Your task to perform on an android device: change the upload size in google photos Image 0: 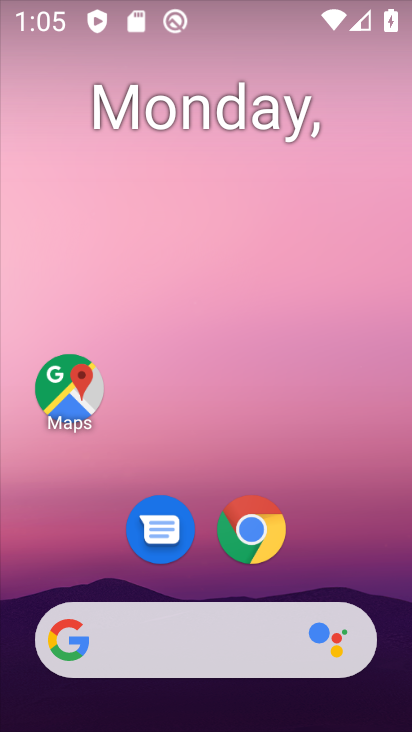
Step 0: drag from (308, 549) to (282, 46)
Your task to perform on an android device: change the upload size in google photos Image 1: 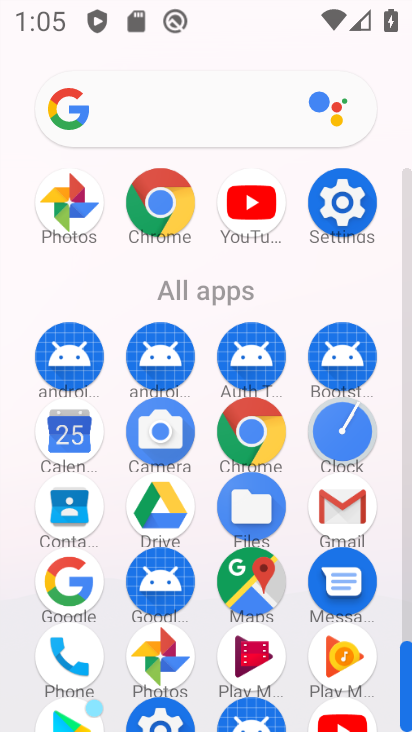
Step 1: click (73, 204)
Your task to perform on an android device: change the upload size in google photos Image 2: 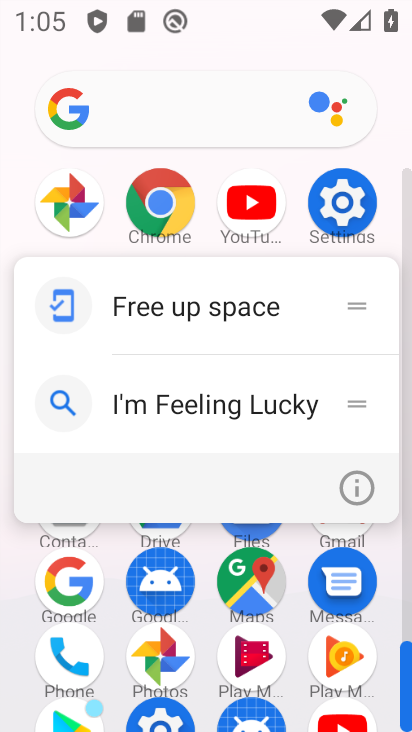
Step 2: click (73, 204)
Your task to perform on an android device: change the upload size in google photos Image 3: 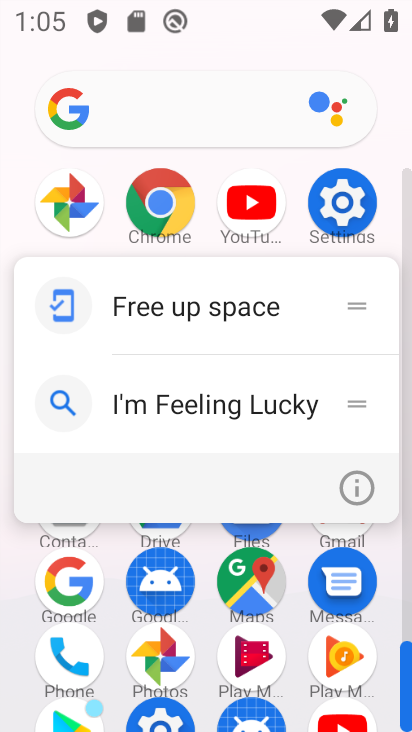
Step 3: click (73, 205)
Your task to perform on an android device: change the upload size in google photos Image 4: 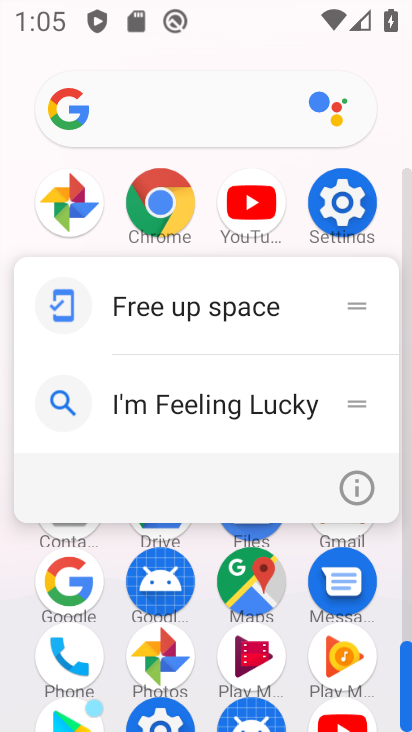
Step 4: click (67, 187)
Your task to perform on an android device: change the upload size in google photos Image 5: 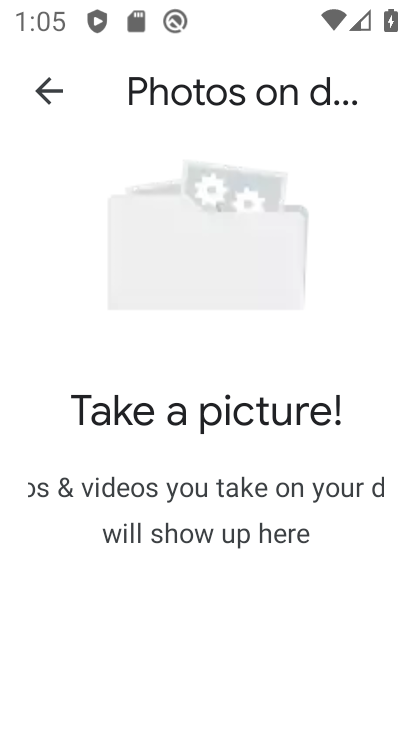
Step 5: click (63, 173)
Your task to perform on an android device: change the upload size in google photos Image 6: 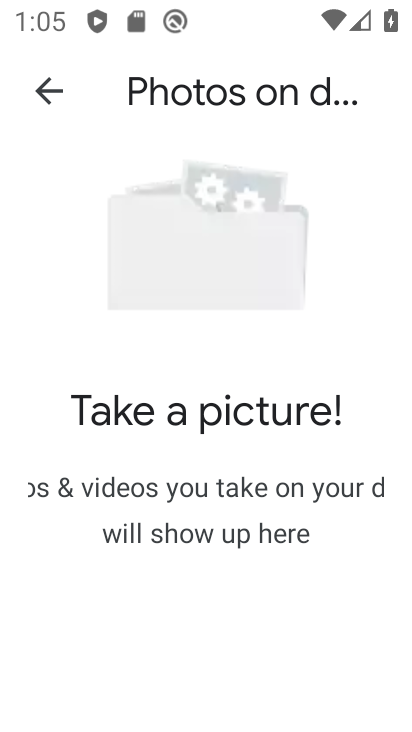
Step 6: click (48, 95)
Your task to perform on an android device: change the upload size in google photos Image 7: 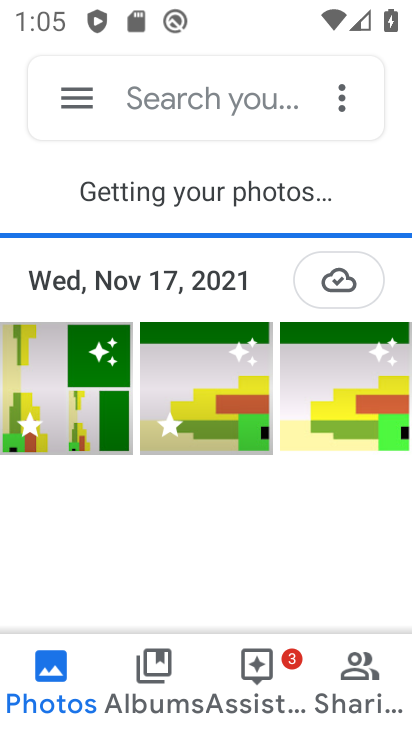
Step 7: click (71, 95)
Your task to perform on an android device: change the upload size in google photos Image 8: 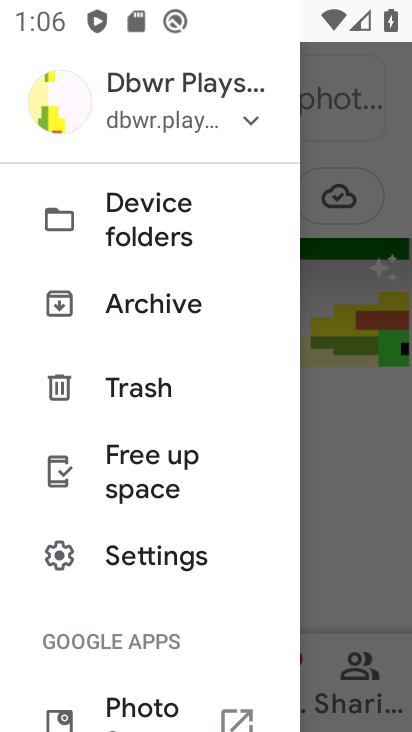
Step 8: drag from (195, 481) to (183, 181)
Your task to perform on an android device: change the upload size in google photos Image 9: 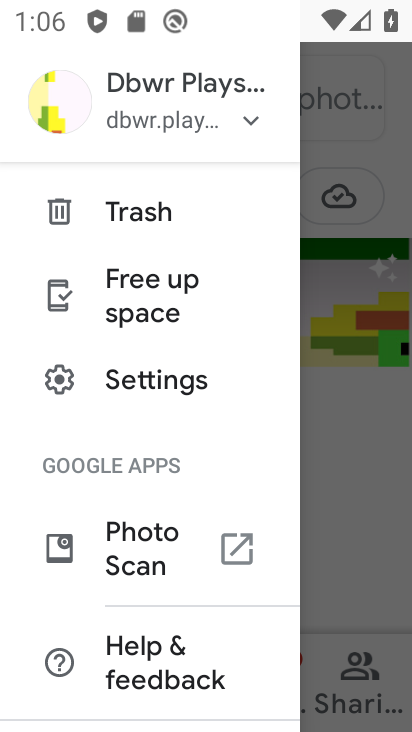
Step 9: drag from (176, 645) to (195, 180)
Your task to perform on an android device: change the upload size in google photos Image 10: 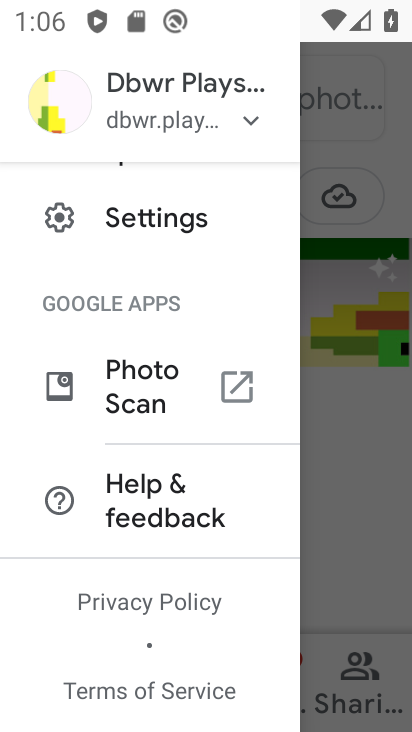
Step 10: click (143, 230)
Your task to perform on an android device: change the upload size in google photos Image 11: 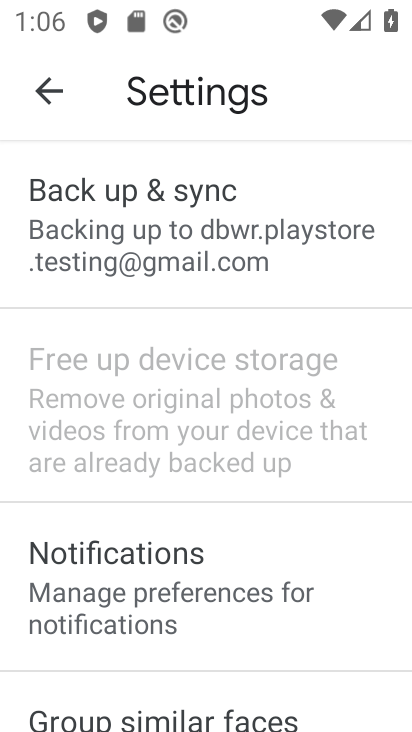
Step 11: click (143, 230)
Your task to perform on an android device: change the upload size in google photos Image 12: 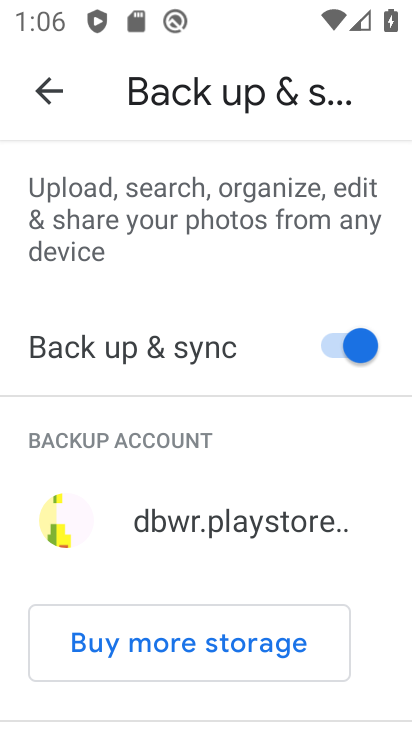
Step 12: drag from (210, 431) to (203, 159)
Your task to perform on an android device: change the upload size in google photos Image 13: 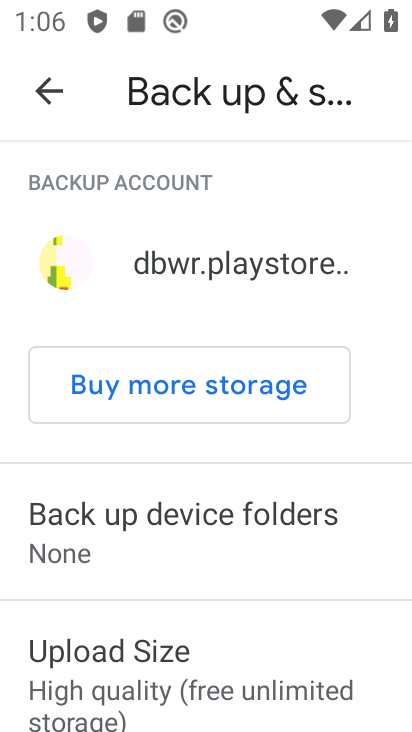
Step 13: drag from (238, 577) to (258, 142)
Your task to perform on an android device: change the upload size in google photos Image 14: 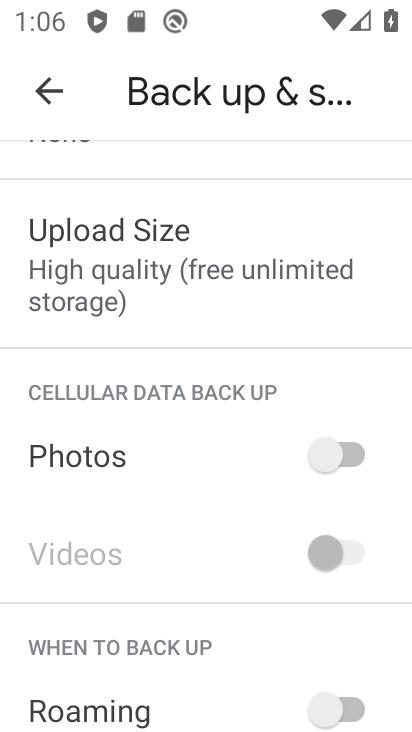
Step 14: click (126, 264)
Your task to perform on an android device: change the upload size in google photos Image 15: 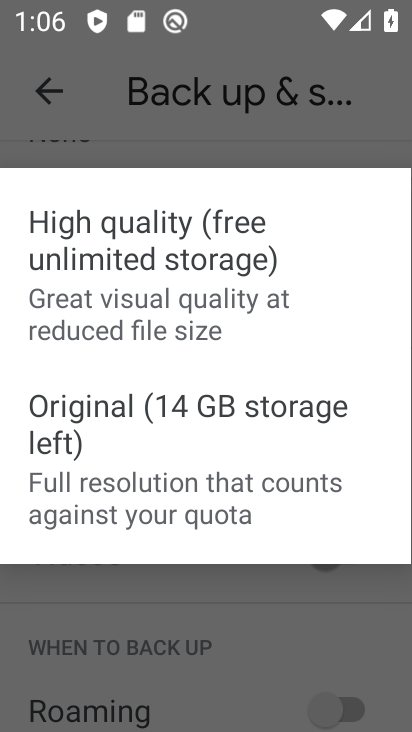
Step 15: press back button
Your task to perform on an android device: change the upload size in google photos Image 16: 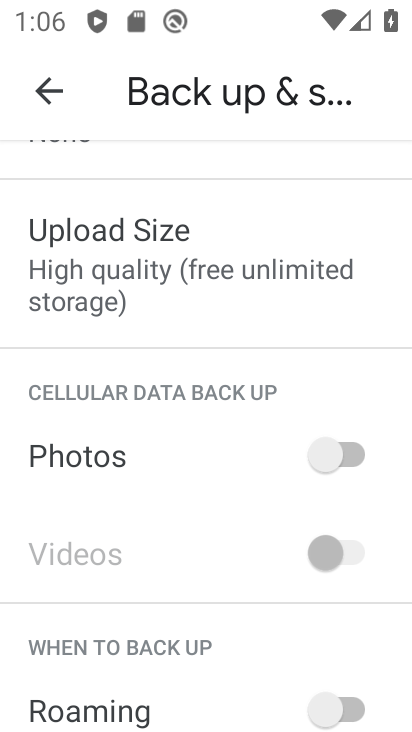
Step 16: click (170, 279)
Your task to perform on an android device: change the upload size in google photos Image 17: 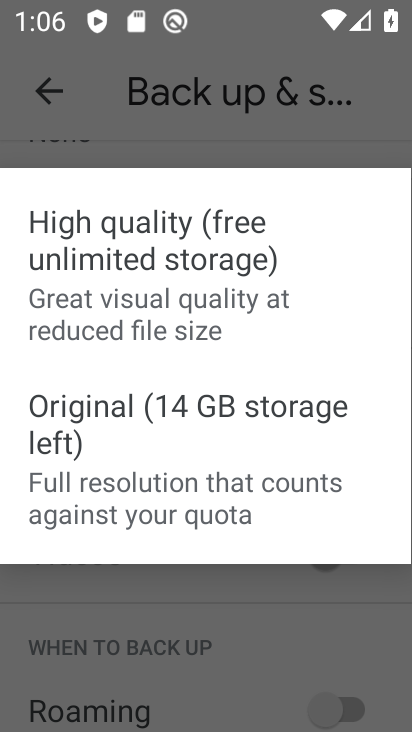
Step 17: click (131, 464)
Your task to perform on an android device: change the upload size in google photos Image 18: 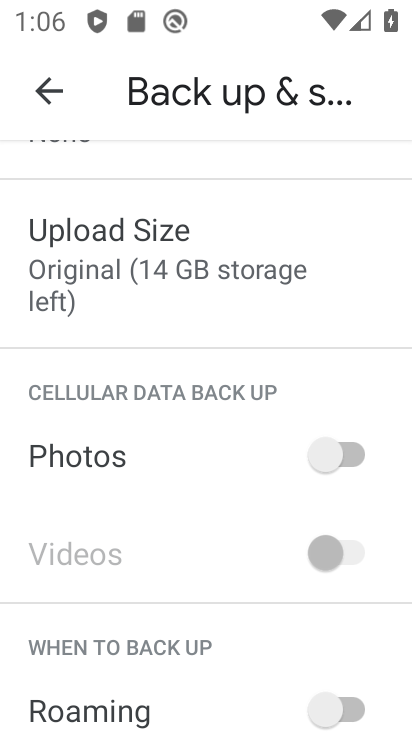
Step 18: task complete